Your task to perform on an android device: View the shopping cart on ebay.com. Add razer blade to the cart on ebay.com Image 0: 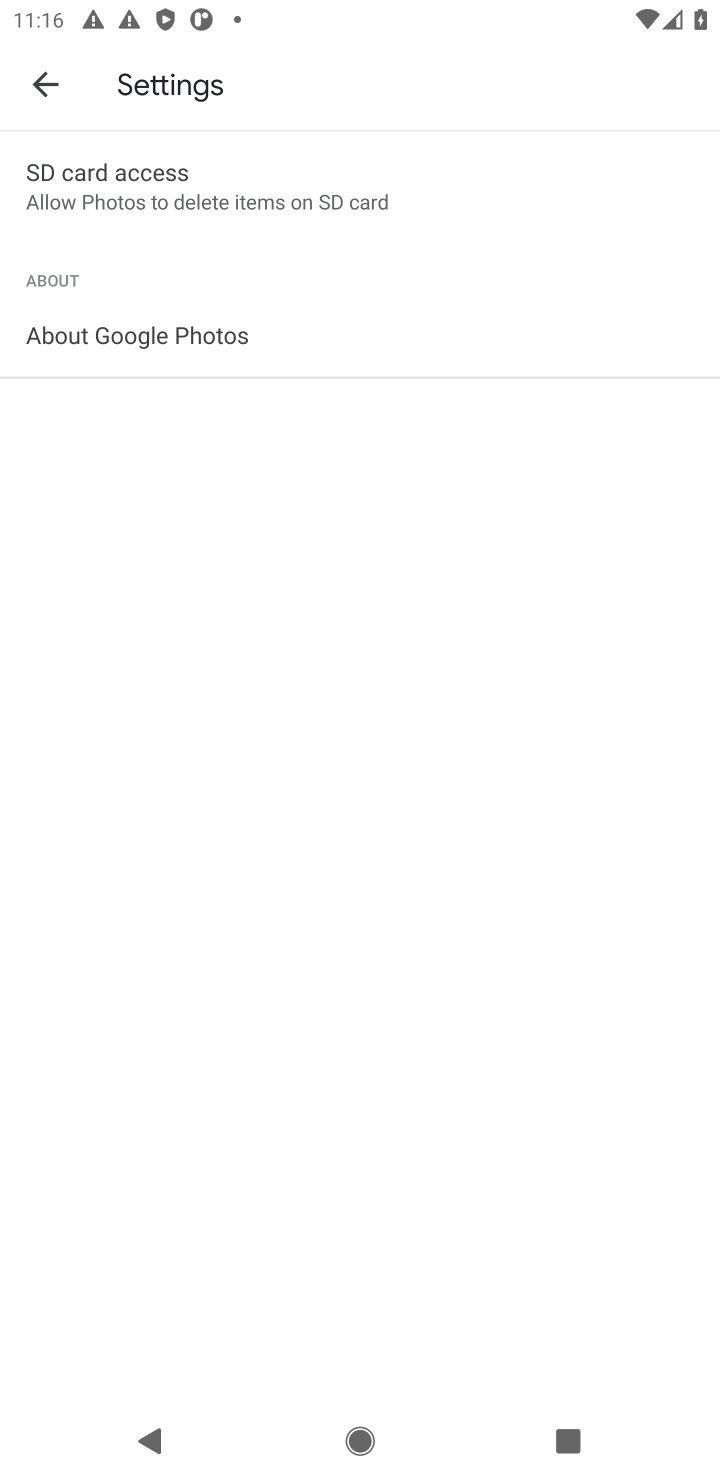
Step 0: press home button
Your task to perform on an android device: View the shopping cart on ebay.com. Add razer blade to the cart on ebay.com Image 1: 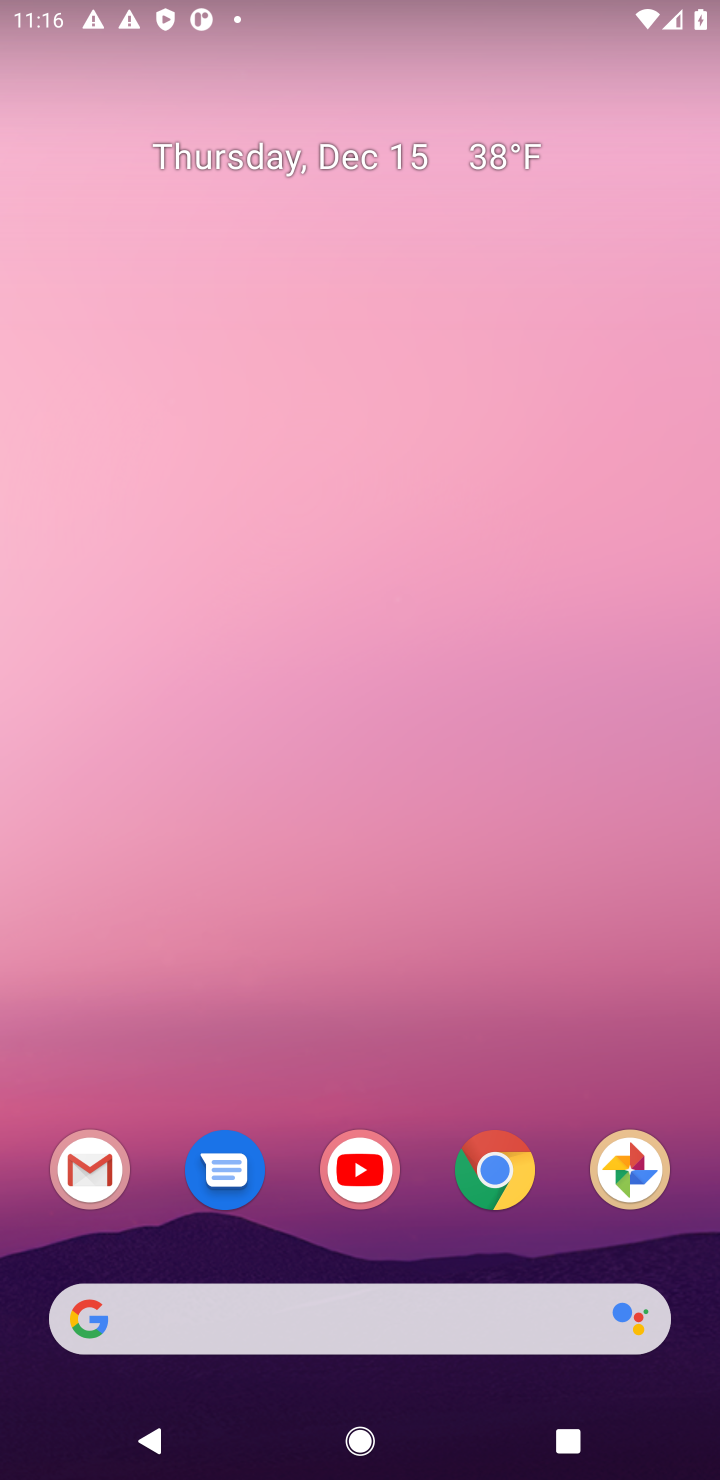
Step 1: click (503, 1183)
Your task to perform on an android device: View the shopping cart on ebay.com. Add razer blade to the cart on ebay.com Image 2: 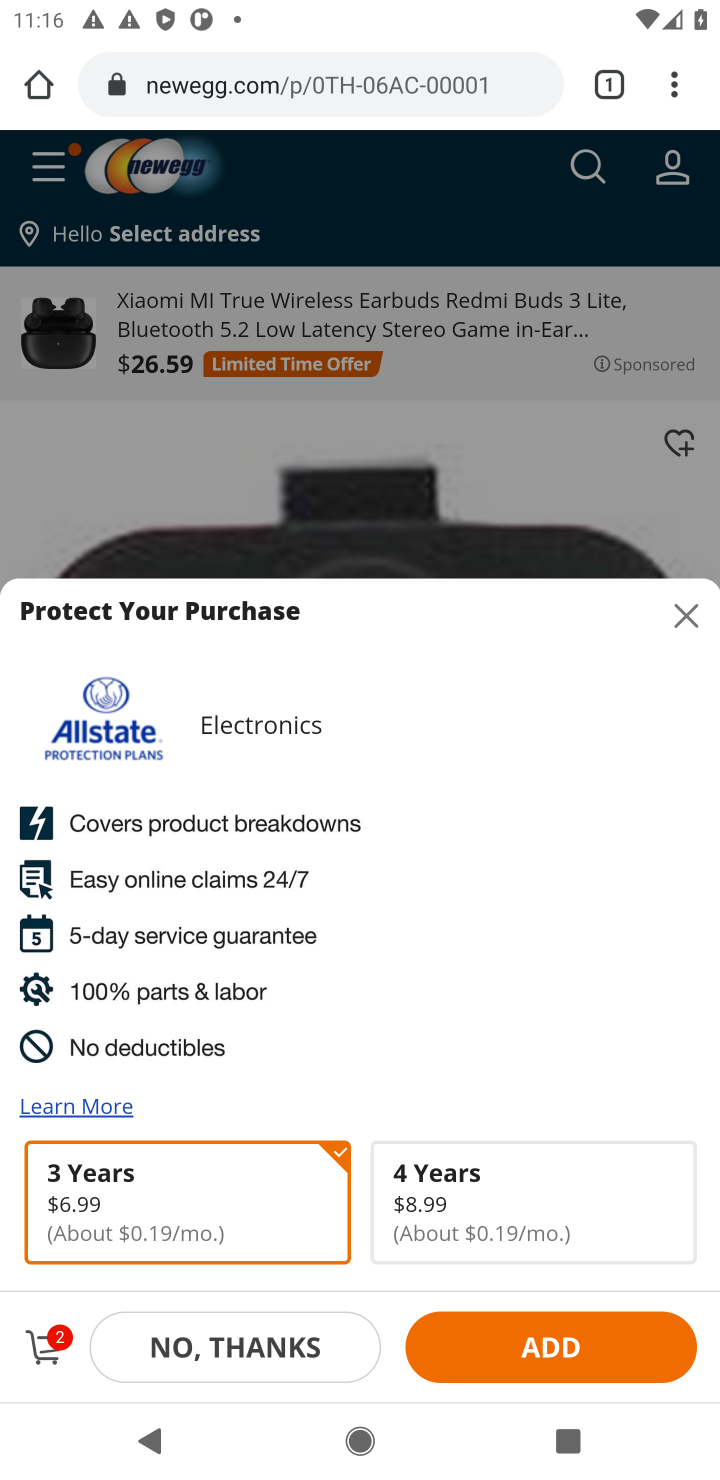
Step 2: click (246, 89)
Your task to perform on an android device: View the shopping cart on ebay.com. Add razer blade to the cart on ebay.com Image 3: 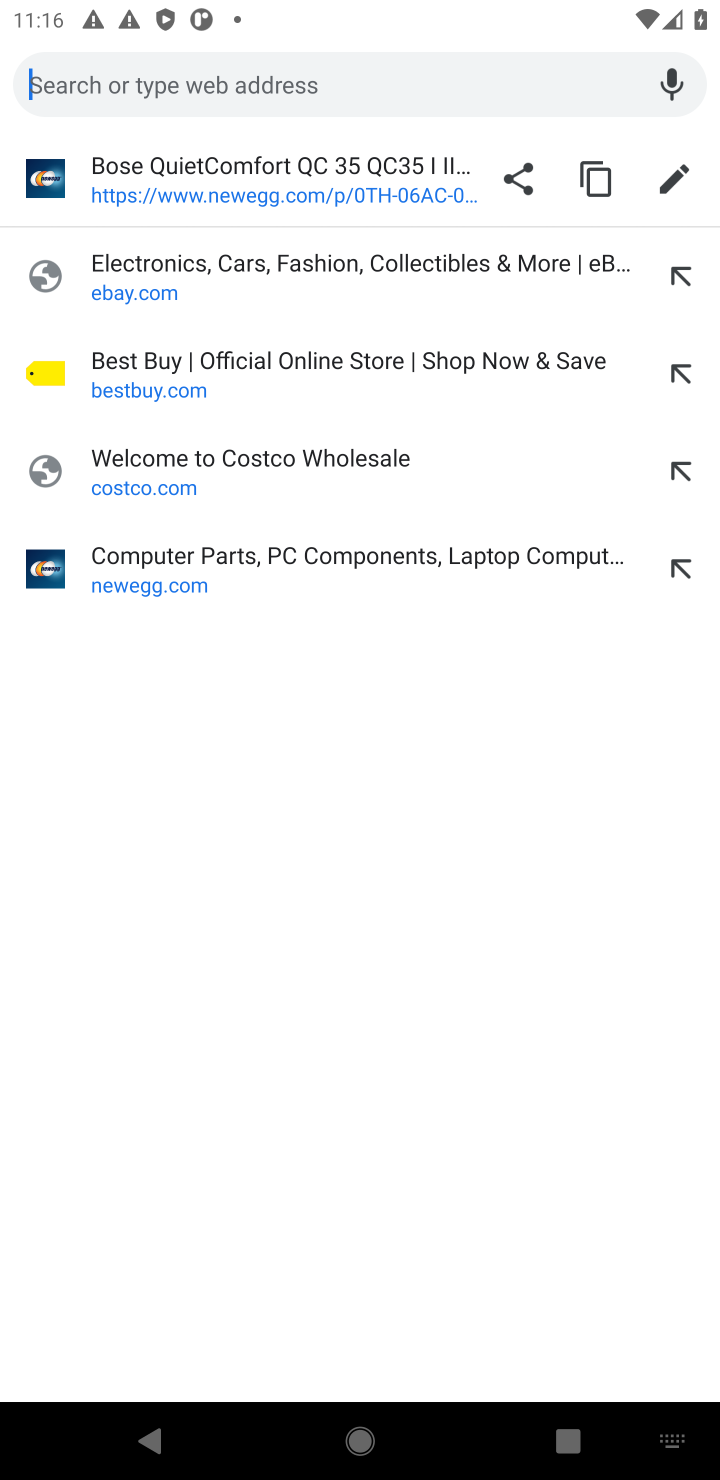
Step 3: click (123, 281)
Your task to perform on an android device: View the shopping cart on ebay.com. Add razer blade to the cart on ebay.com Image 4: 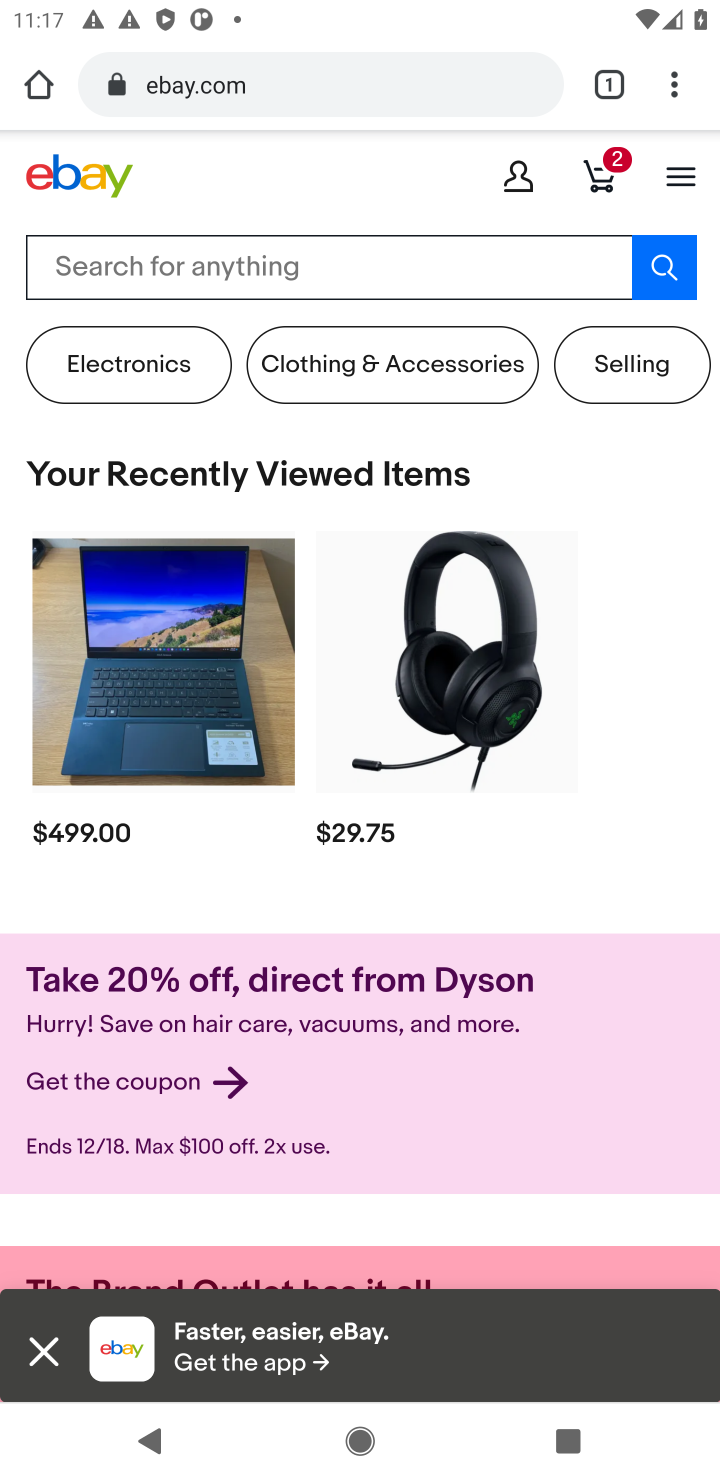
Step 4: click (609, 182)
Your task to perform on an android device: View the shopping cart on ebay.com. Add razer blade to the cart on ebay.com Image 5: 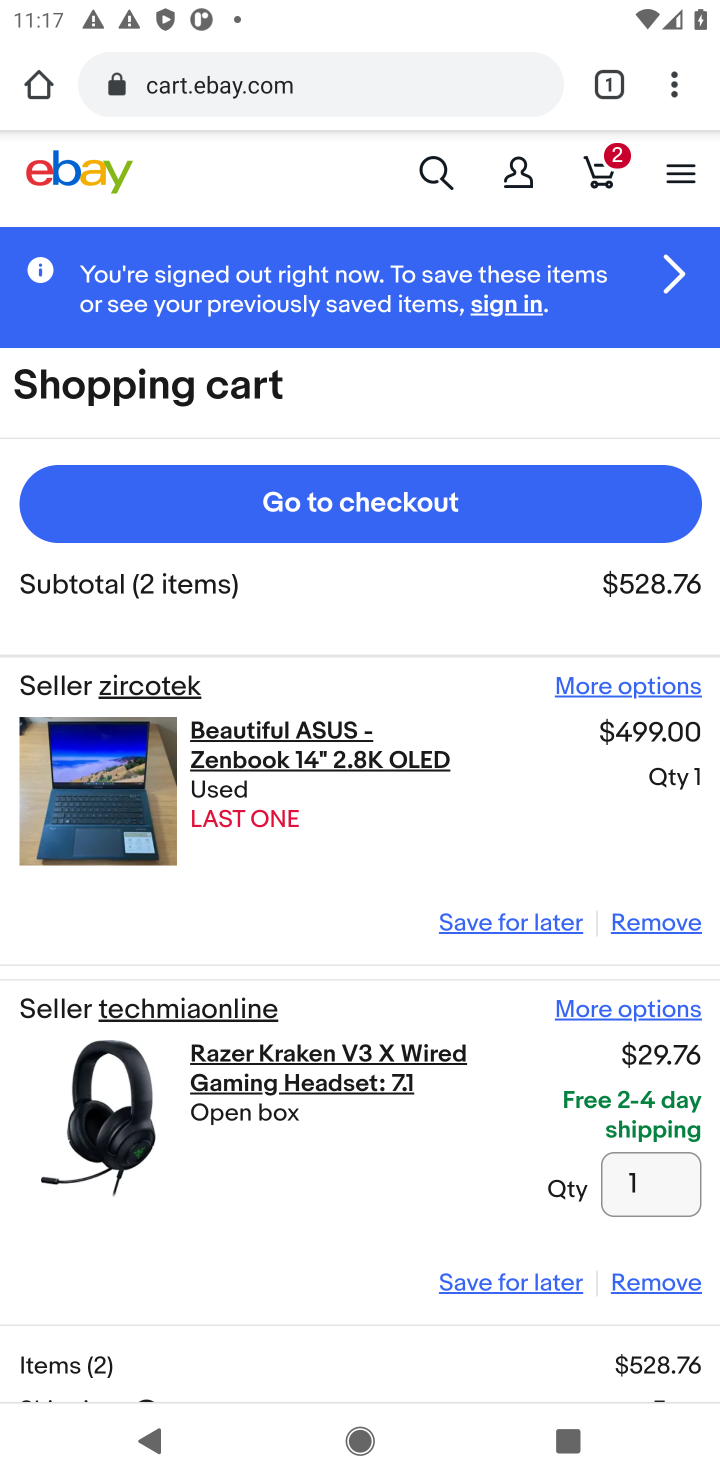
Step 5: click (435, 162)
Your task to perform on an android device: View the shopping cart on ebay.com. Add razer blade to the cart on ebay.com Image 6: 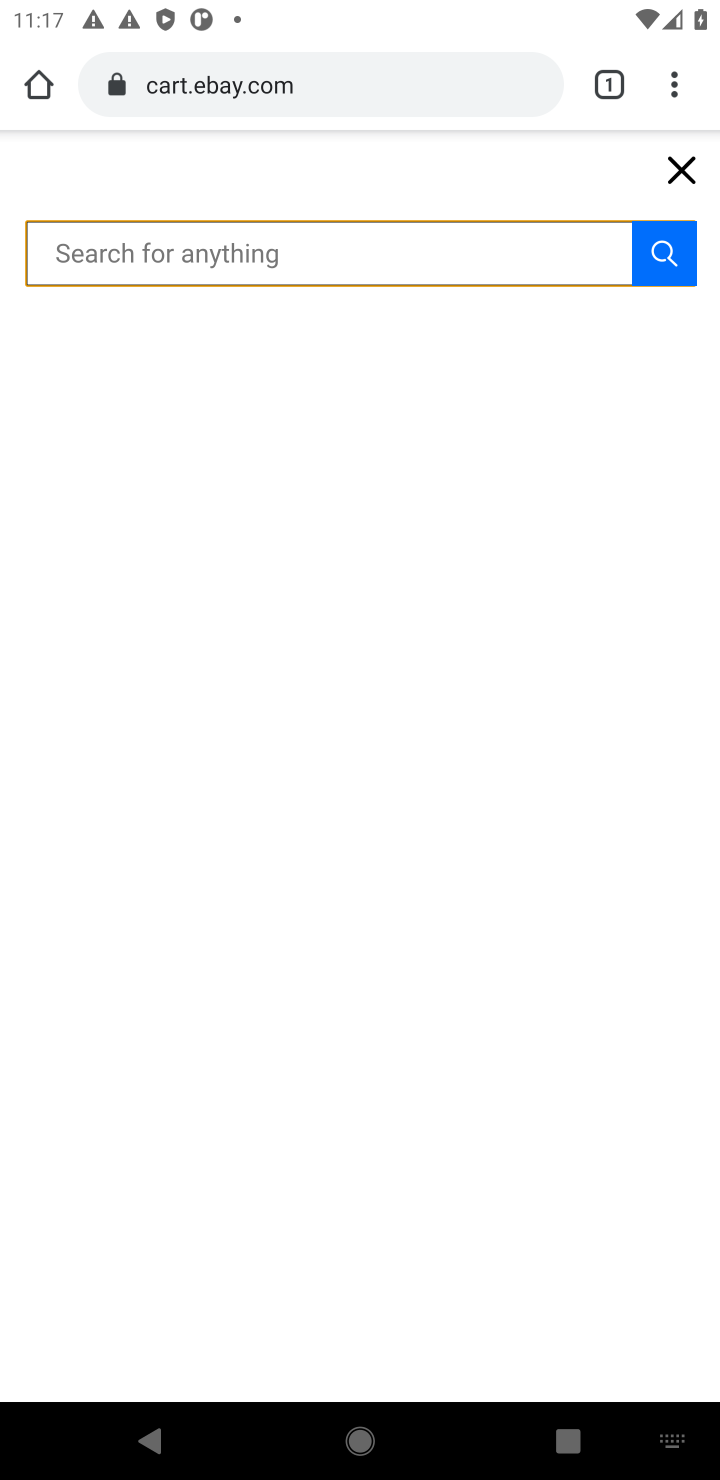
Step 6: type "razer blade"
Your task to perform on an android device: View the shopping cart on ebay.com. Add razer blade to the cart on ebay.com Image 7: 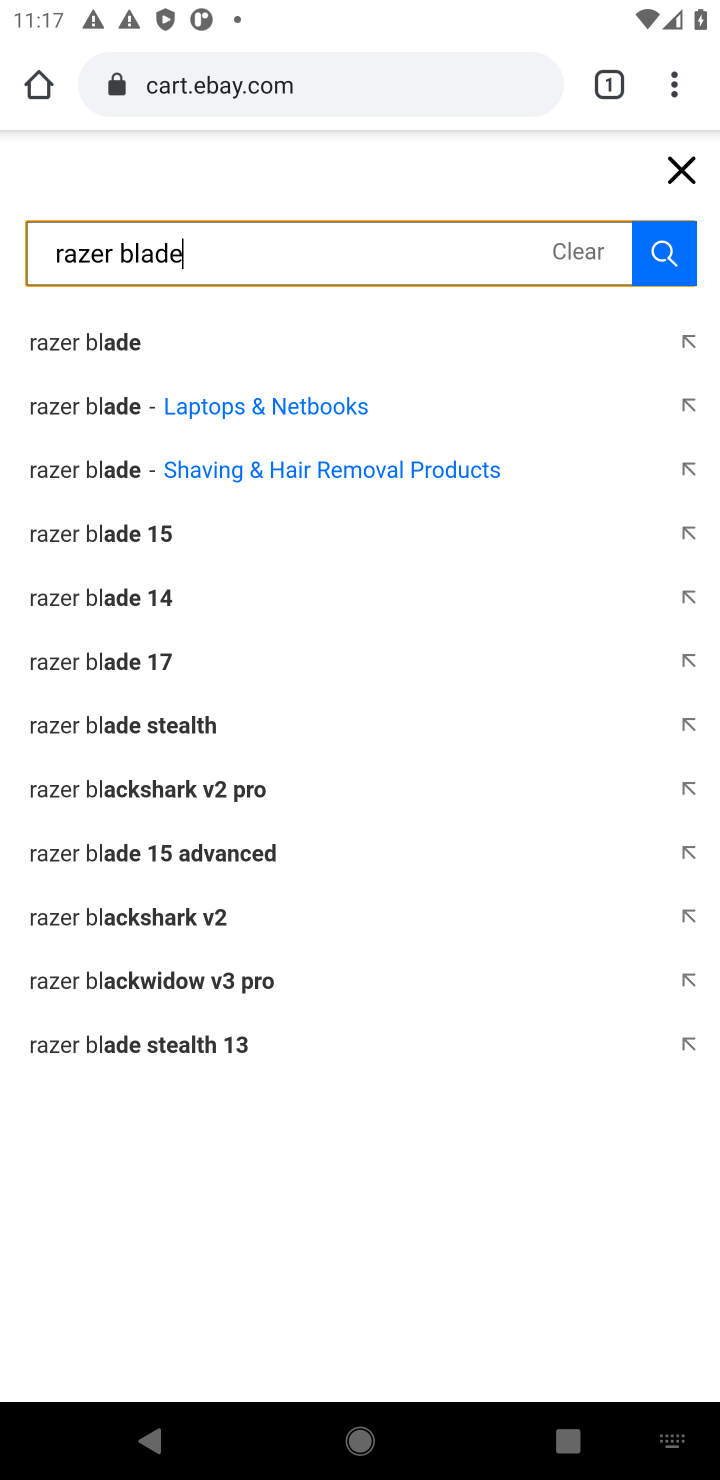
Step 7: click (64, 345)
Your task to perform on an android device: View the shopping cart on ebay.com. Add razer blade to the cart on ebay.com Image 8: 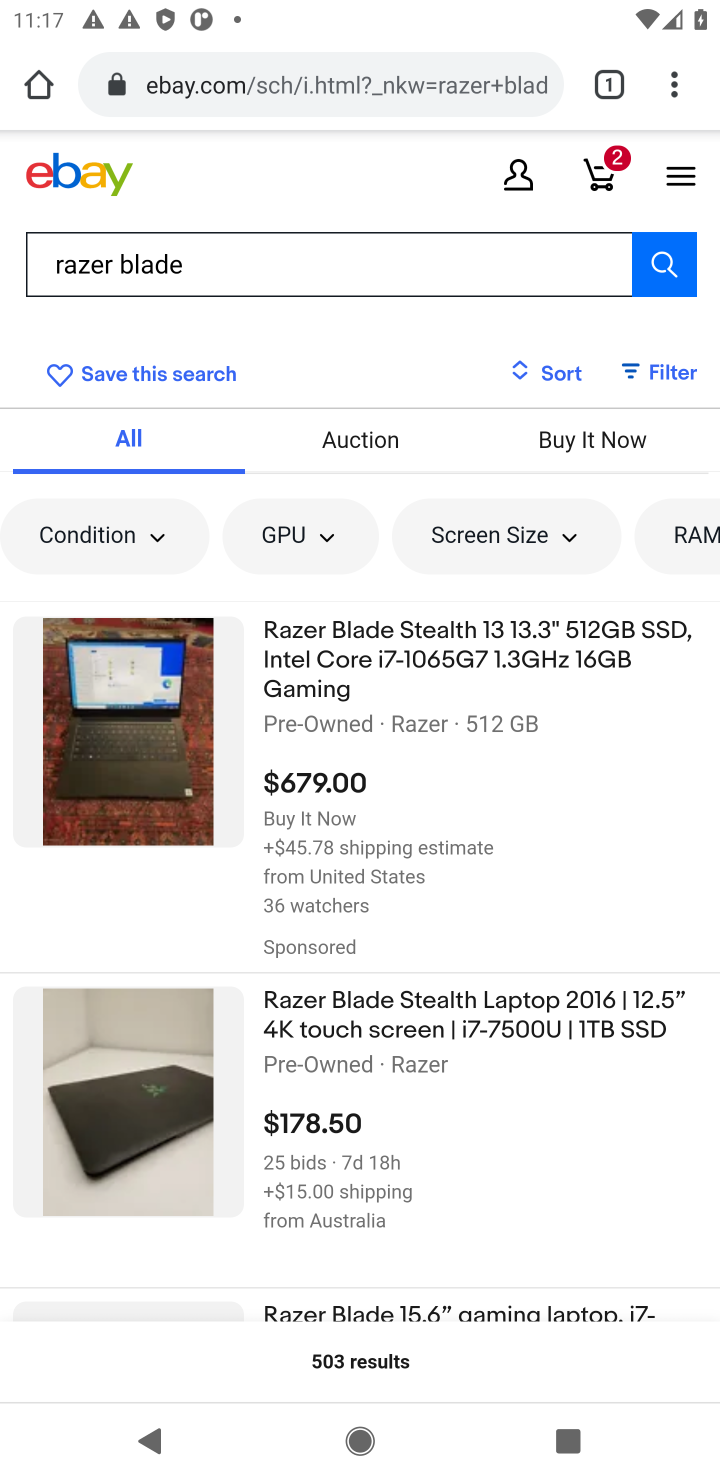
Step 8: click (315, 653)
Your task to perform on an android device: View the shopping cart on ebay.com. Add razer blade to the cart on ebay.com Image 9: 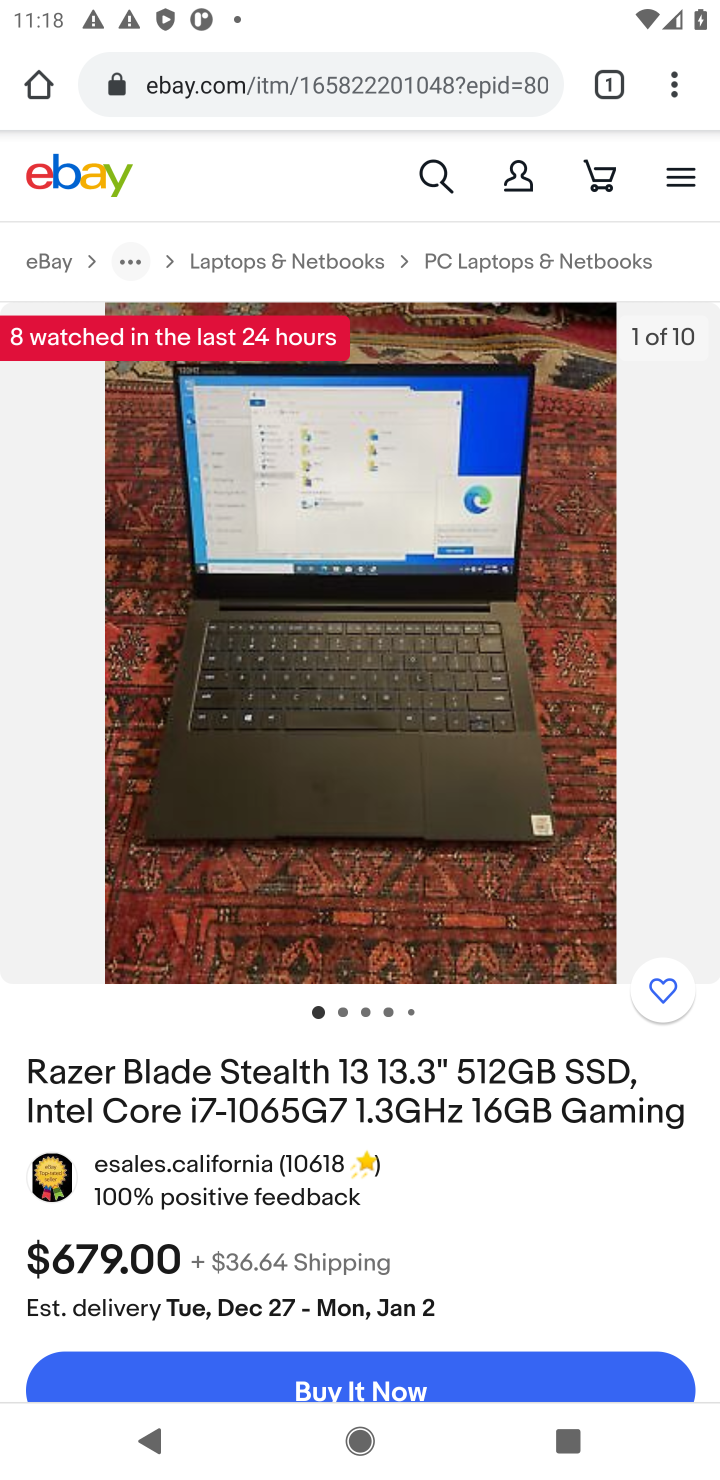
Step 9: drag from (329, 1087) to (288, 615)
Your task to perform on an android device: View the shopping cart on ebay.com. Add razer blade to the cart on ebay.com Image 10: 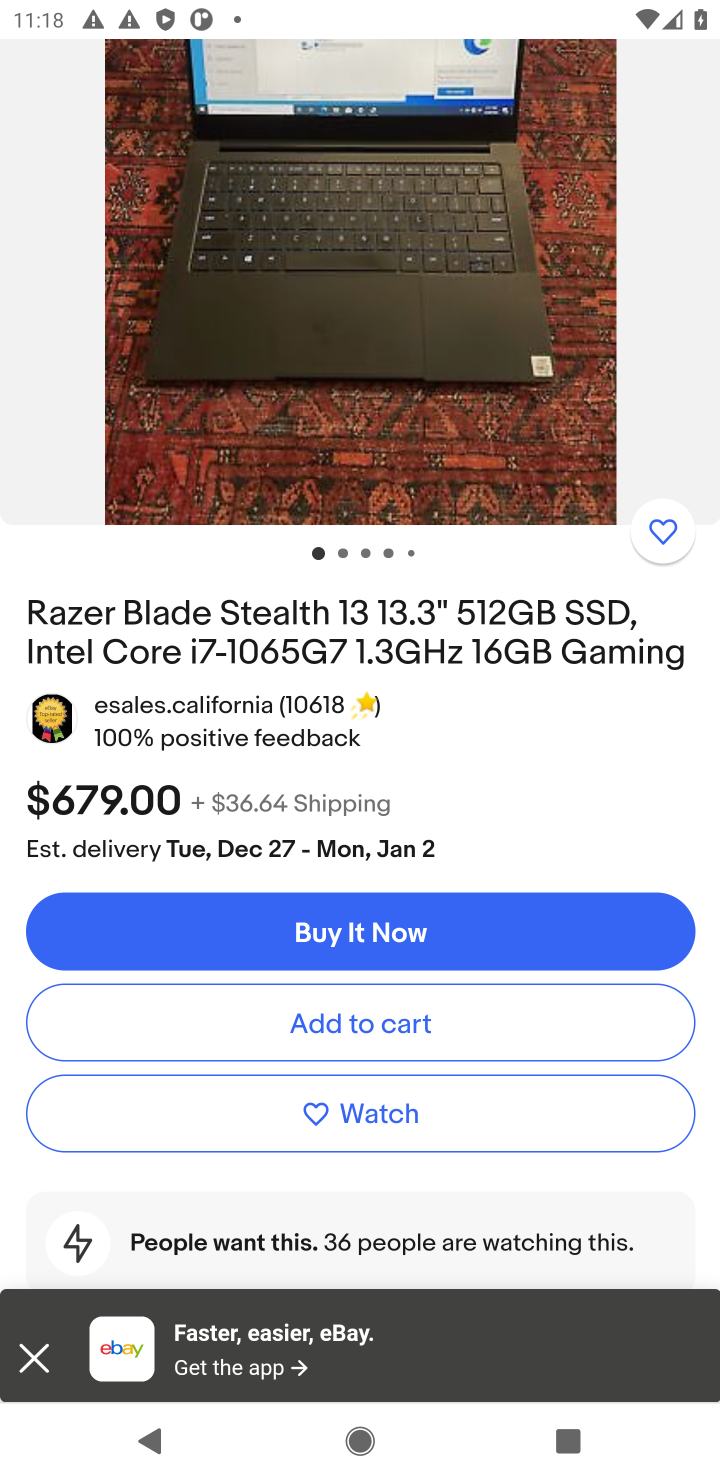
Step 10: click (288, 1021)
Your task to perform on an android device: View the shopping cart on ebay.com. Add razer blade to the cart on ebay.com Image 11: 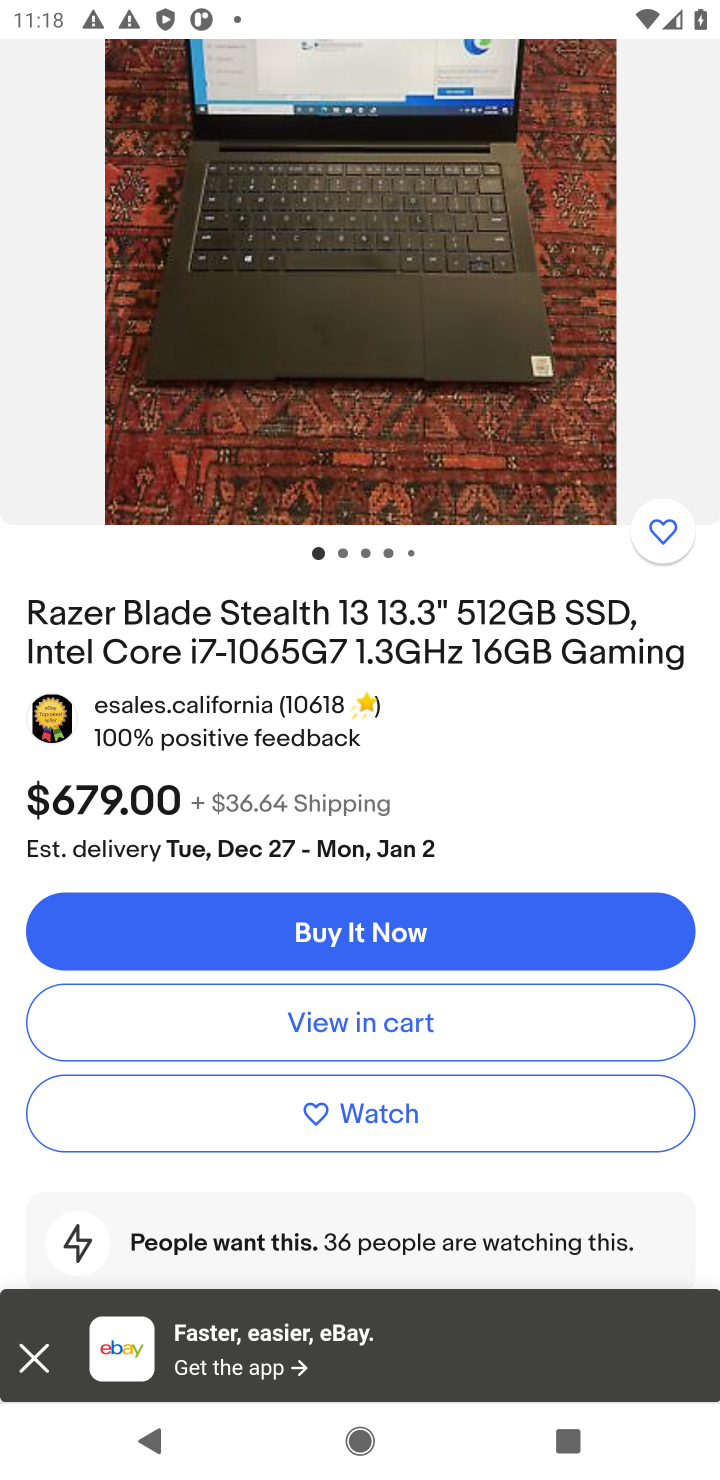
Step 11: task complete